Your task to perform on an android device: open wifi settings Image 0: 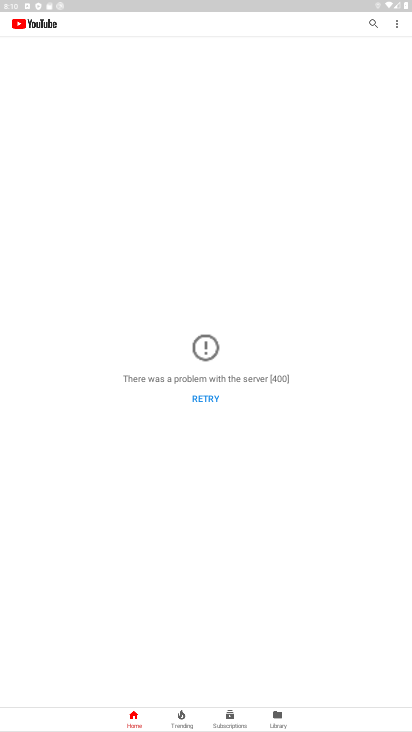
Step 0: press home button
Your task to perform on an android device: open wifi settings Image 1: 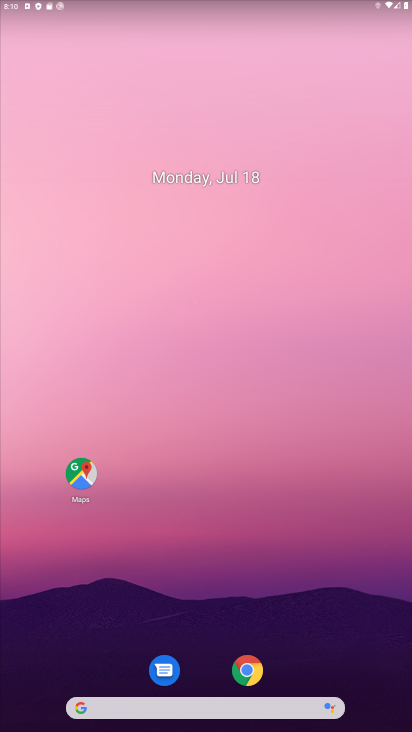
Step 1: click (215, 87)
Your task to perform on an android device: open wifi settings Image 2: 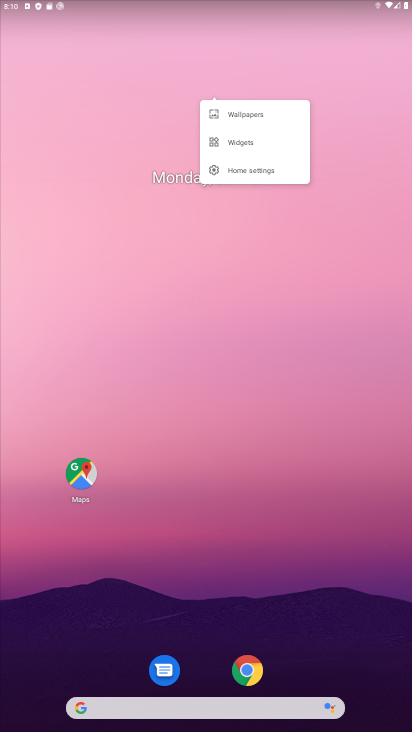
Step 2: click (205, 627)
Your task to perform on an android device: open wifi settings Image 3: 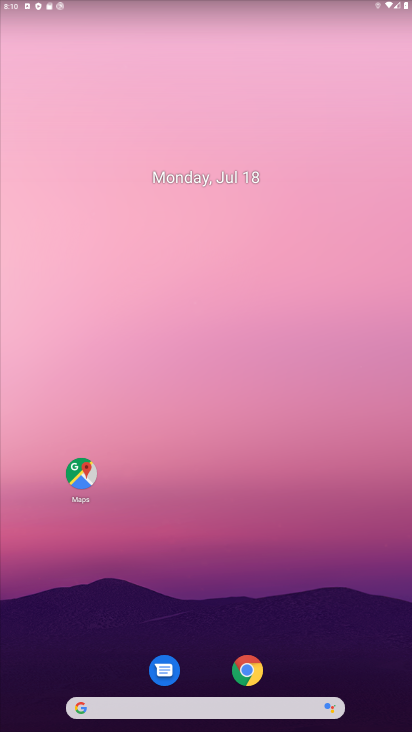
Step 3: drag from (191, 597) to (223, 59)
Your task to perform on an android device: open wifi settings Image 4: 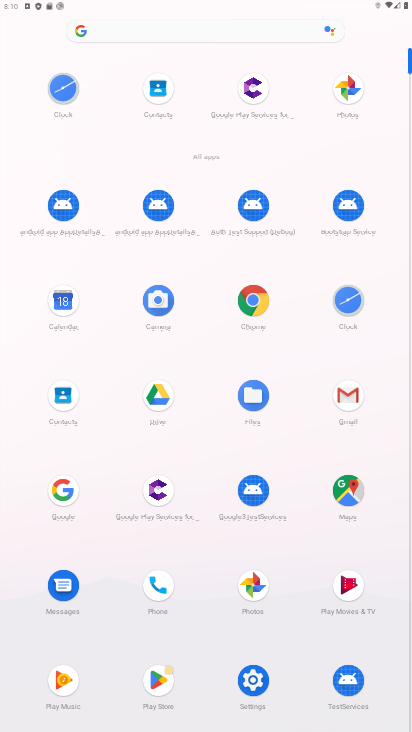
Step 4: click (250, 674)
Your task to perform on an android device: open wifi settings Image 5: 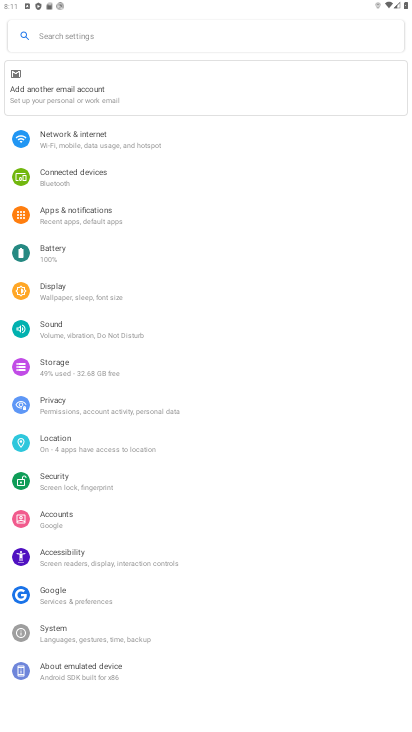
Step 5: click (82, 137)
Your task to perform on an android device: open wifi settings Image 6: 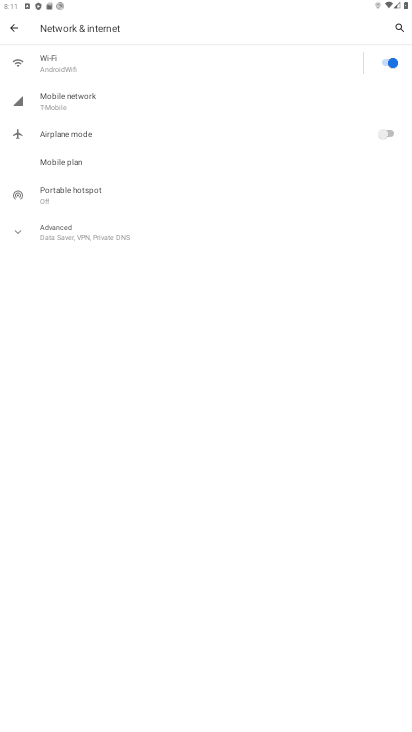
Step 6: click (138, 65)
Your task to perform on an android device: open wifi settings Image 7: 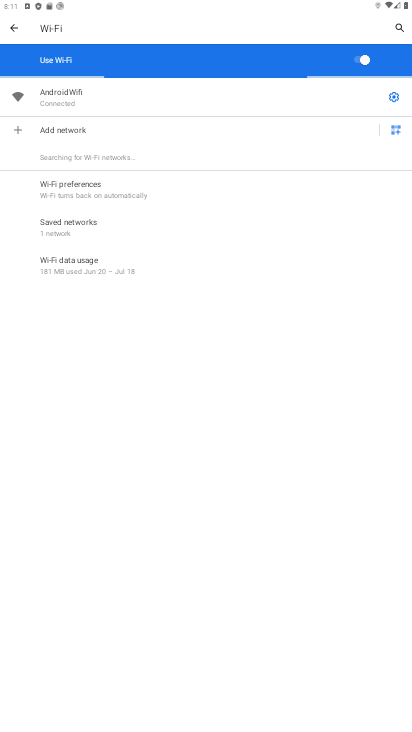
Step 7: task complete